Your task to perform on an android device: turn on showing notifications on the lock screen Image 0: 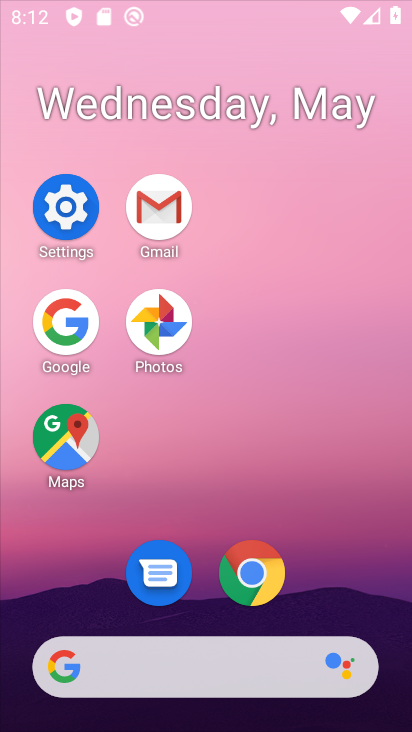
Step 0: click (351, 44)
Your task to perform on an android device: turn on showing notifications on the lock screen Image 1: 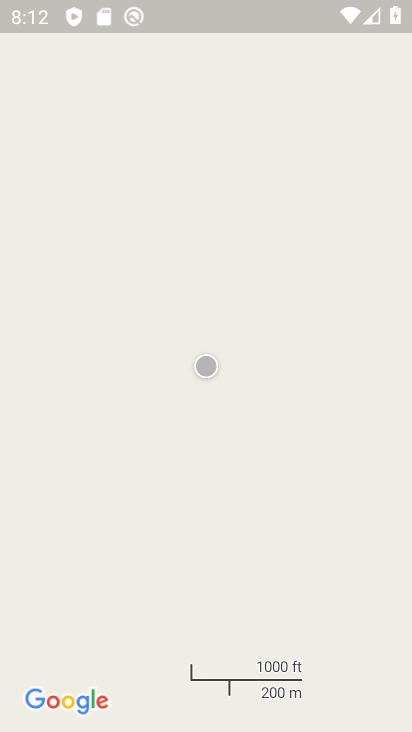
Step 1: press home button
Your task to perform on an android device: turn on showing notifications on the lock screen Image 2: 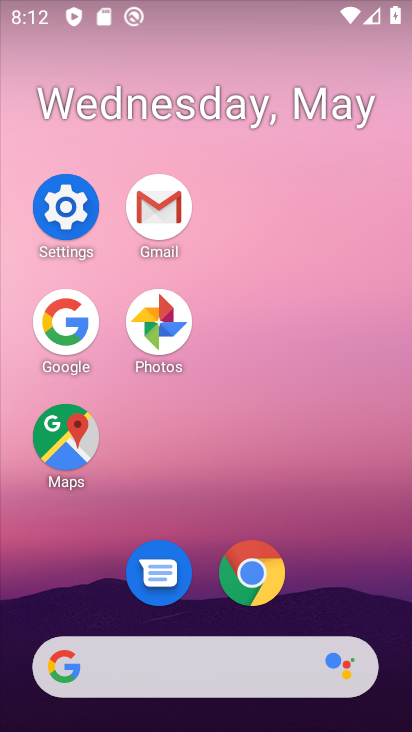
Step 2: drag from (353, 614) to (385, 188)
Your task to perform on an android device: turn on showing notifications on the lock screen Image 3: 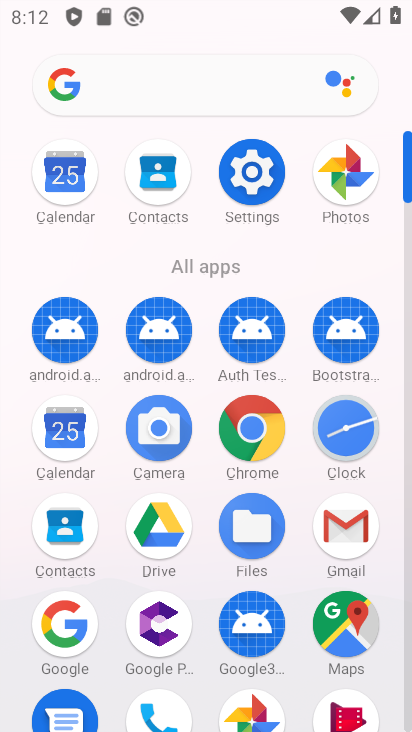
Step 3: drag from (341, 440) to (260, 316)
Your task to perform on an android device: turn on showing notifications on the lock screen Image 4: 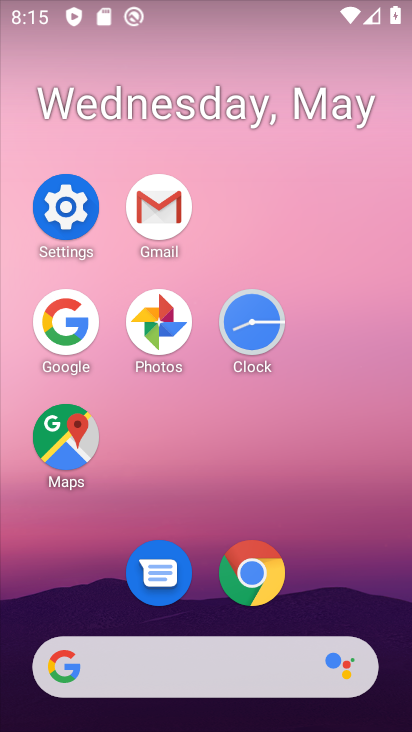
Step 4: click (63, 197)
Your task to perform on an android device: turn on showing notifications on the lock screen Image 5: 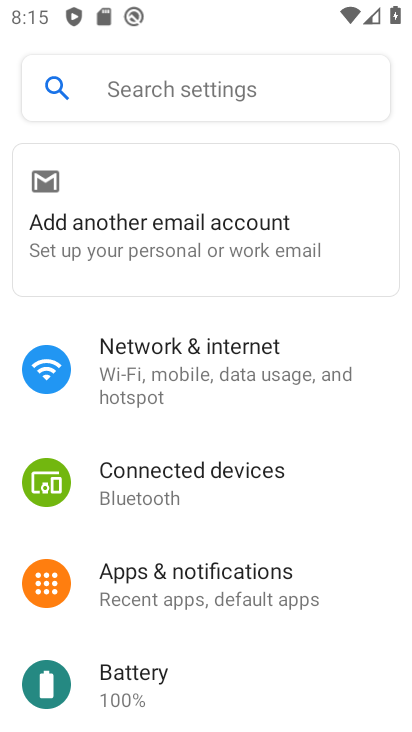
Step 5: click (250, 585)
Your task to perform on an android device: turn on showing notifications on the lock screen Image 6: 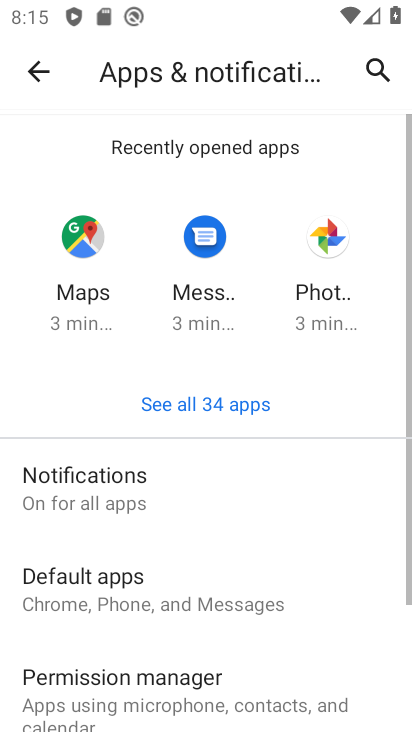
Step 6: click (172, 483)
Your task to perform on an android device: turn on showing notifications on the lock screen Image 7: 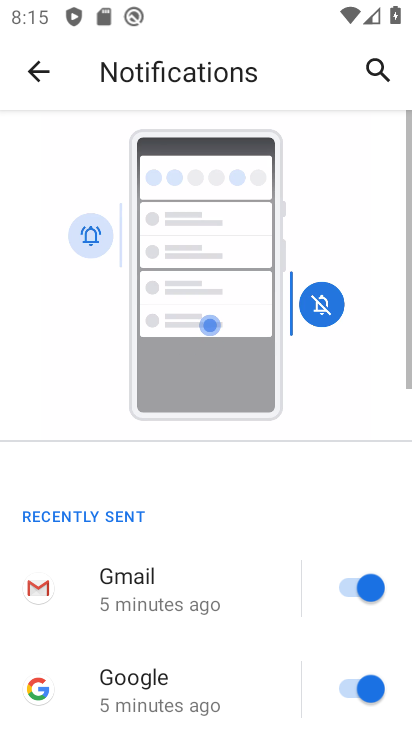
Step 7: drag from (214, 582) to (218, 157)
Your task to perform on an android device: turn on showing notifications on the lock screen Image 8: 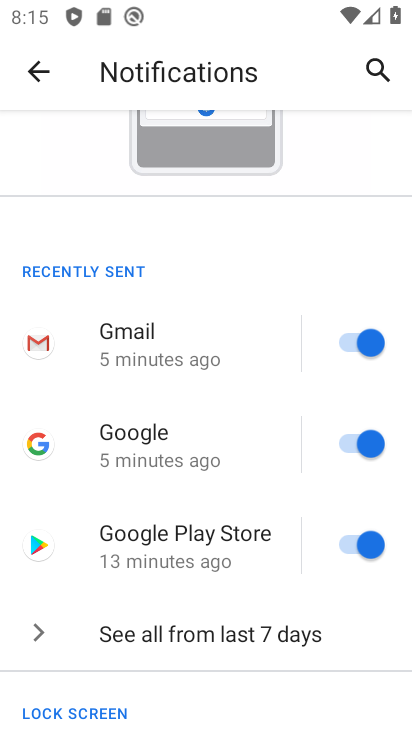
Step 8: drag from (220, 642) to (221, 186)
Your task to perform on an android device: turn on showing notifications on the lock screen Image 9: 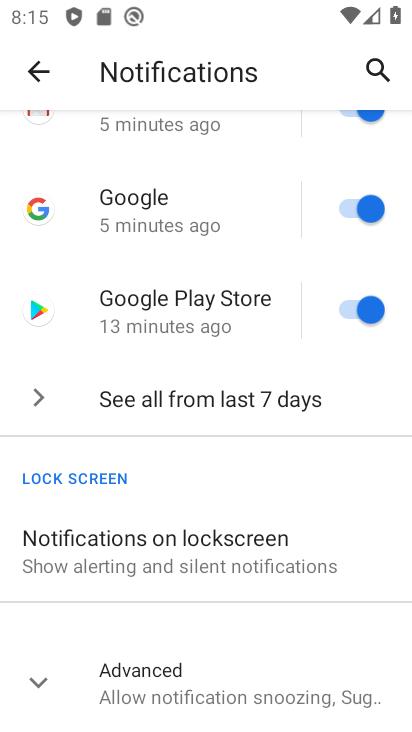
Step 9: click (183, 570)
Your task to perform on an android device: turn on showing notifications on the lock screen Image 10: 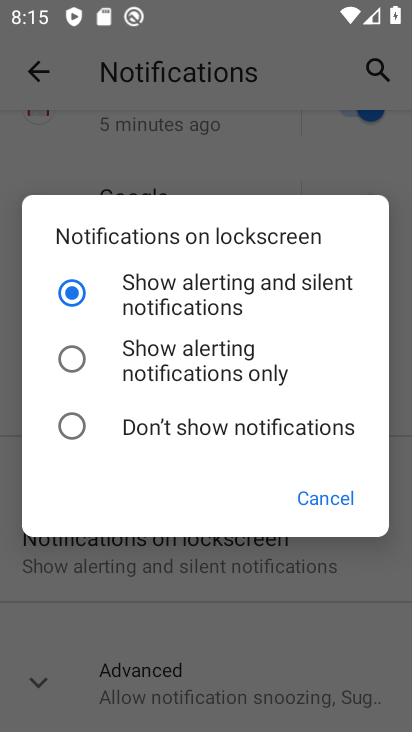
Step 10: task complete